Your task to perform on an android device: check the backup settings in the google photos Image 0: 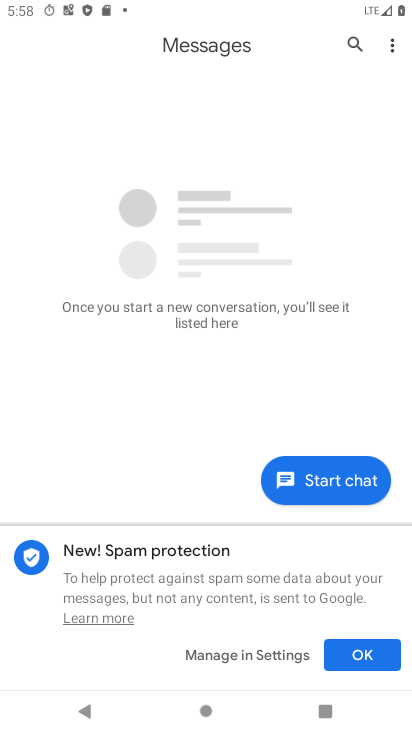
Step 0: press home button
Your task to perform on an android device: check the backup settings in the google photos Image 1: 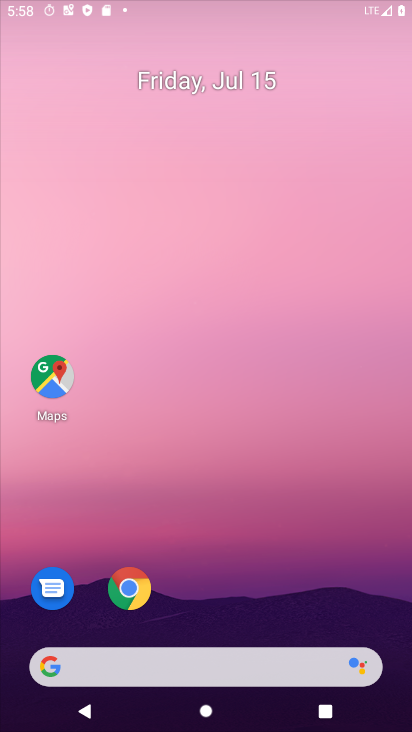
Step 1: drag from (283, 606) to (320, 6)
Your task to perform on an android device: check the backup settings in the google photos Image 2: 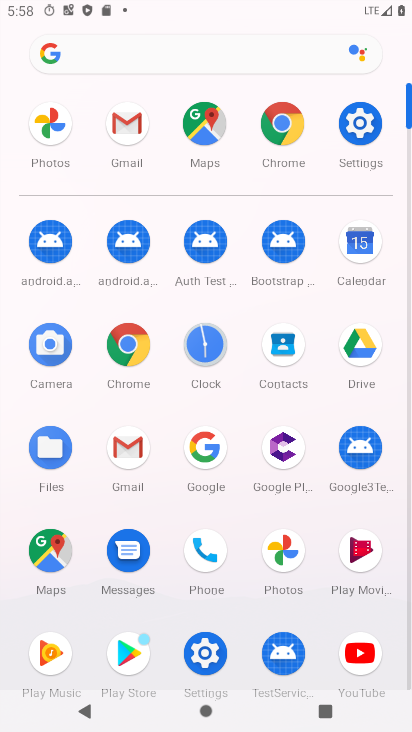
Step 2: click (282, 545)
Your task to perform on an android device: check the backup settings in the google photos Image 3: 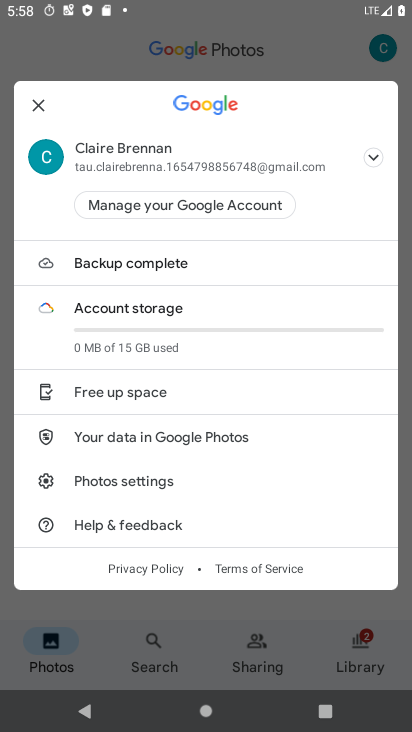
Step 3: press back button
Your task to perform on an android device: check the backup settings in the google photos Image 4: 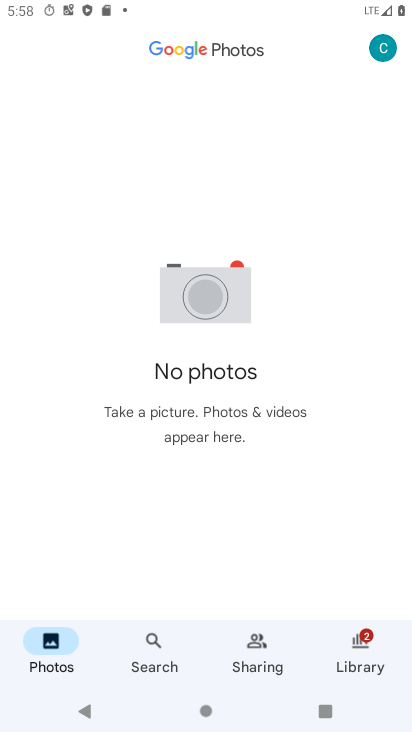
Step 4: click (384, 46)
Your task to perform on an android device: check the backup settings in the google photos Image 5: 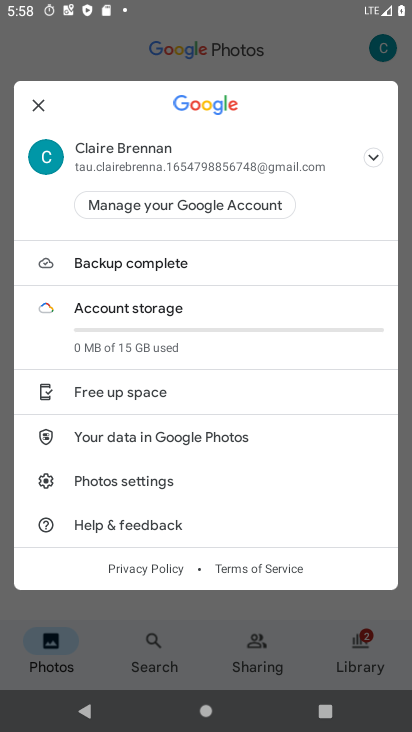
Step 5: click (160, 475)
Your task to perform on an android device: check the backup settings in the google photos Image 6: 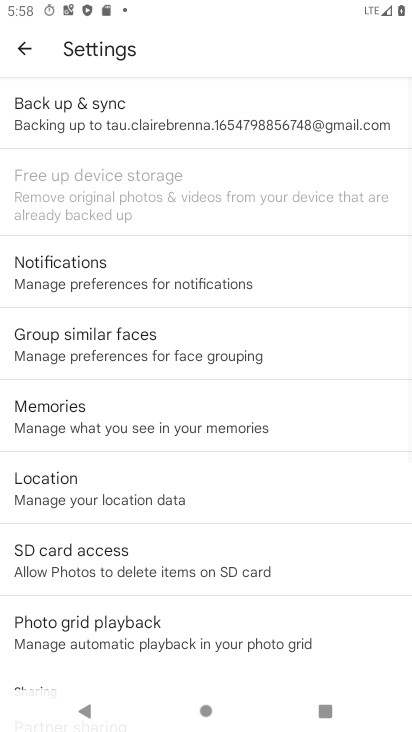
Step 6: click (170, 116)
Your task to perform on an android device: check the backup settings in the google photos Image 7: 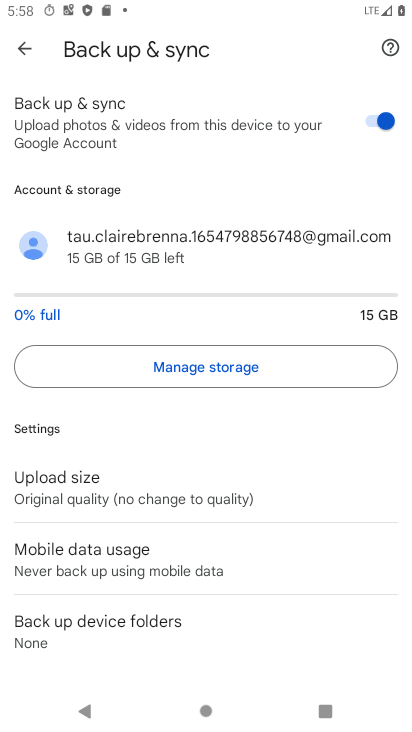
Step 7: task complete